Your task to perform on an android device: turn on notifications settings in the gmail app Image 0: 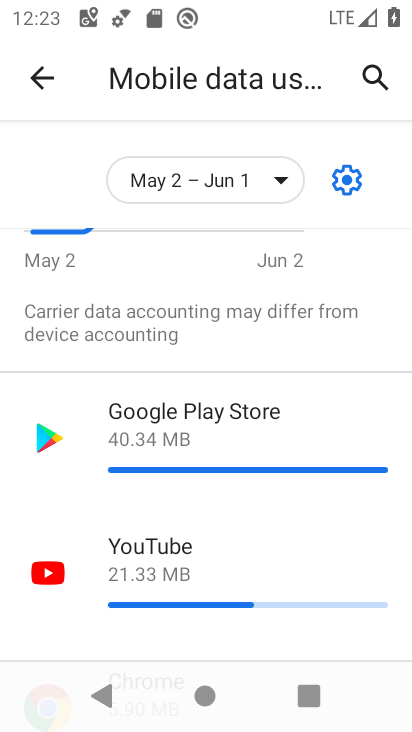
Step 0: press home button
Your task to perform on an android device: turn on notifications settings in the gmail app Image 1: 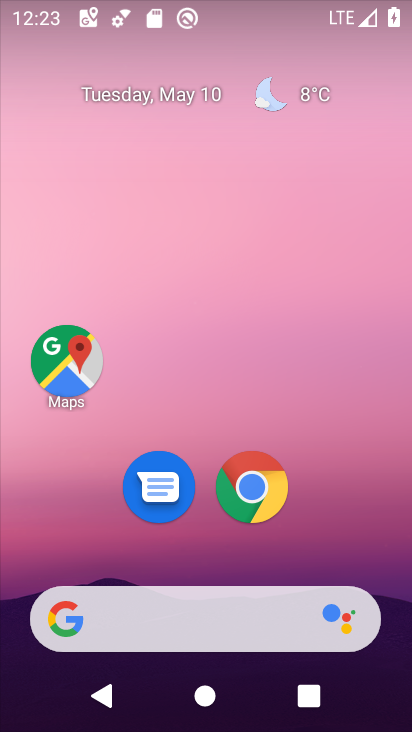
Step 1: drag from (205, 552) to (247, 112)
Your task to perform on an android device: turn on notifications settings in the gmail app Image 2: 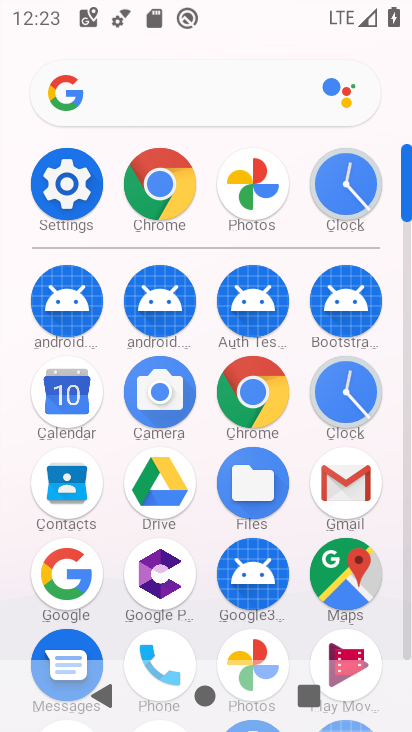
Step 2: click (343, 475)
Your task to perform on an android device: turn on notifications settings in the gmail app Image 3: 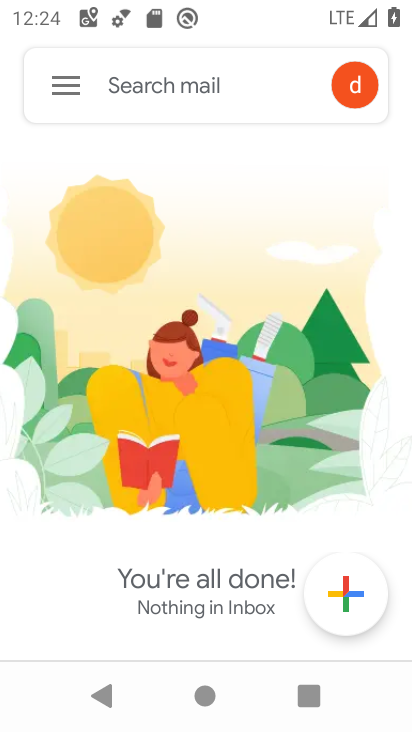
Step 3: click (69, 81)
Your task to perform on an android device: turn on notifications settings in the gmail app Image 4: 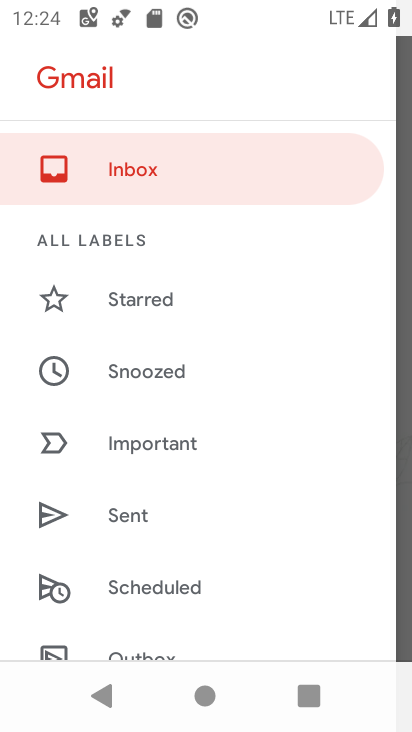
Step 4: drag from (210, 613) to (198, 168)
Your task to perform on an android device: turn on notifications settings in the gmail app Image 5: 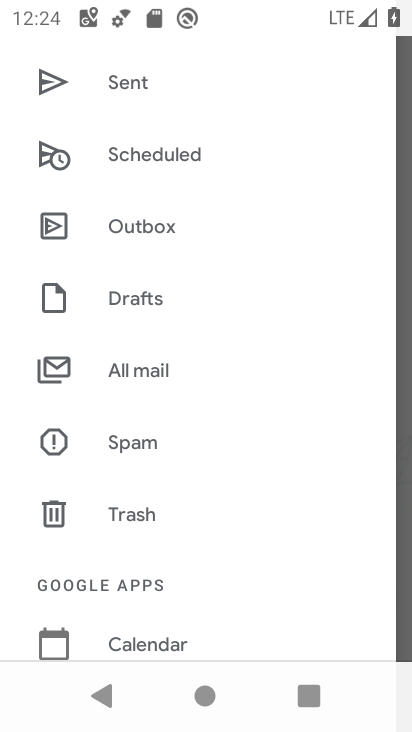
Step 5: drag from (178, 568) to (211, 165)
Your task to perform on an android device: turn on notifications settings in the gmail app Image 6: 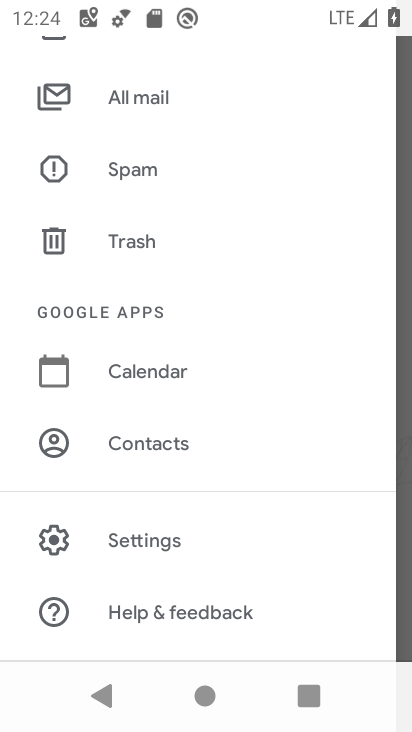
Step 6: click (83, 537)
Your task to perform on an android device: turn on notifications settings in the gmail app Image 7: 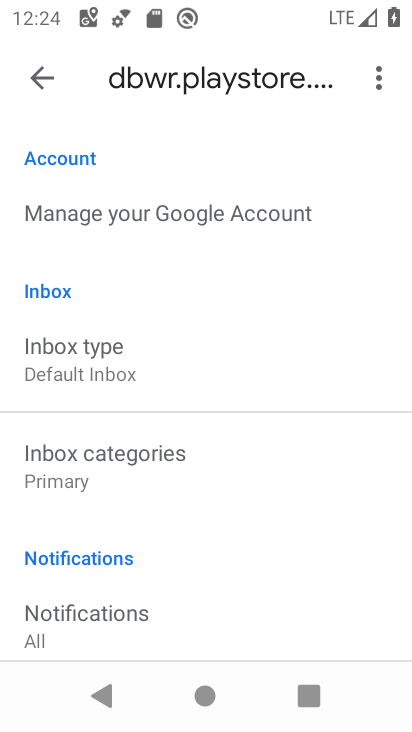
Step 7: click (49, 79)
Your task to perform on an android device: turn on notifications settings in the gmail app Image 8: 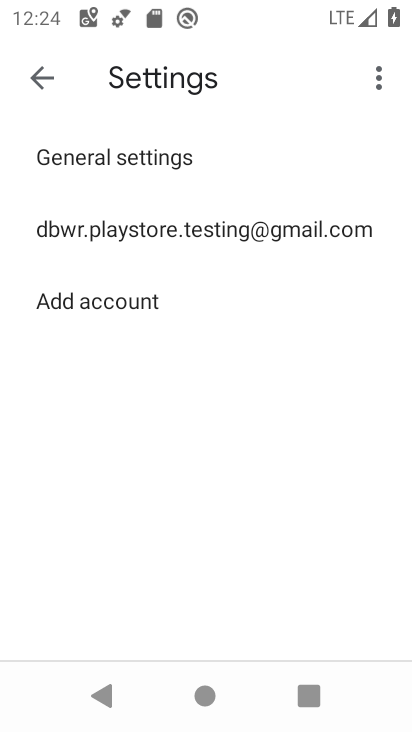
Step 8: click (194, 160)
Your task to perform on an android device: turn on notifications settings in the gmail app Image 9: 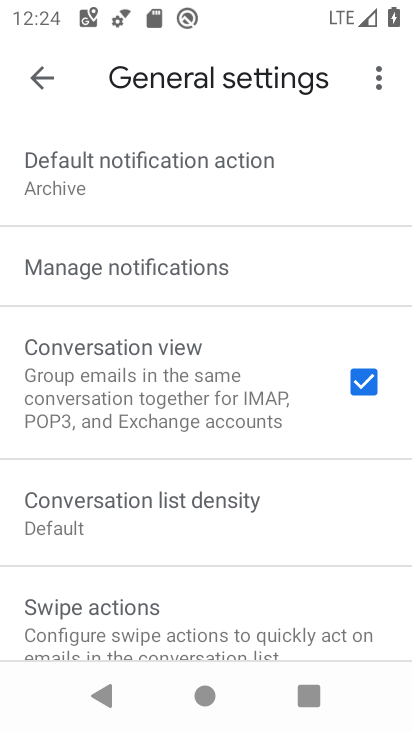
Step 9: click (241, 259)
Your task to perform on an android device: turn on notifications settings in the gmail app Image 10: 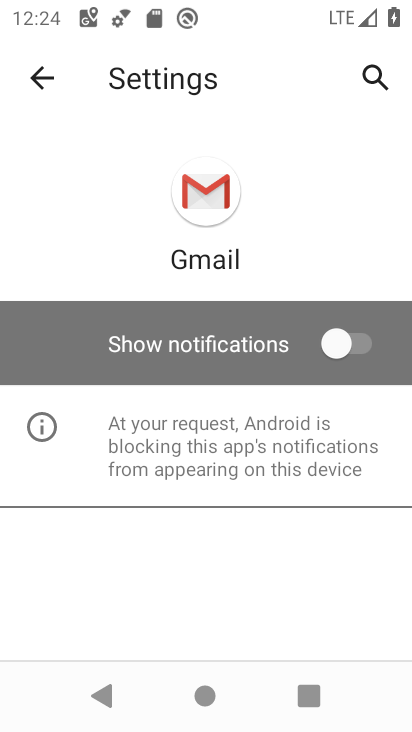
Step 10: click (356, 346)
Your task to perform on an android device: turn on notifications settings in the gmail app Image 11: 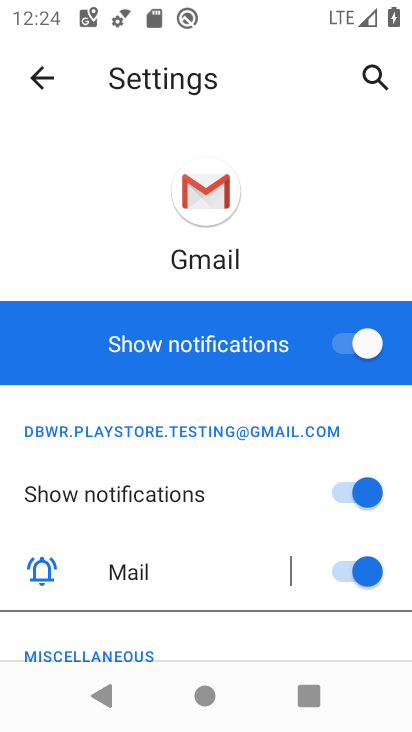
Step 11: task complete